Your task to perform on an android device: change keyboard looks Image 0: 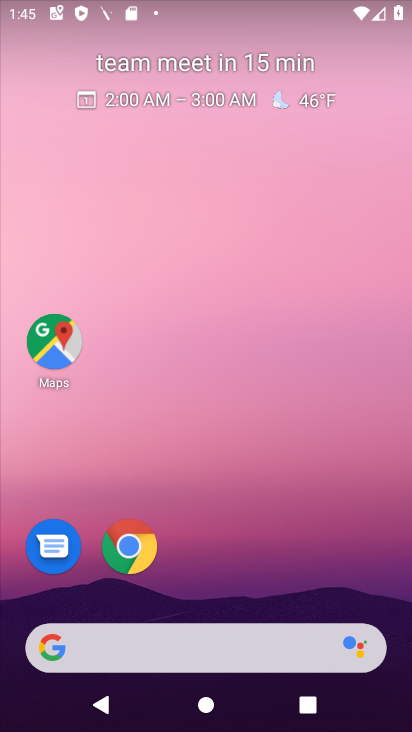
Step 0: drag from (392, 629) to (323, 110)
Your task to perform on an android device: change keyboard looks Image 1: 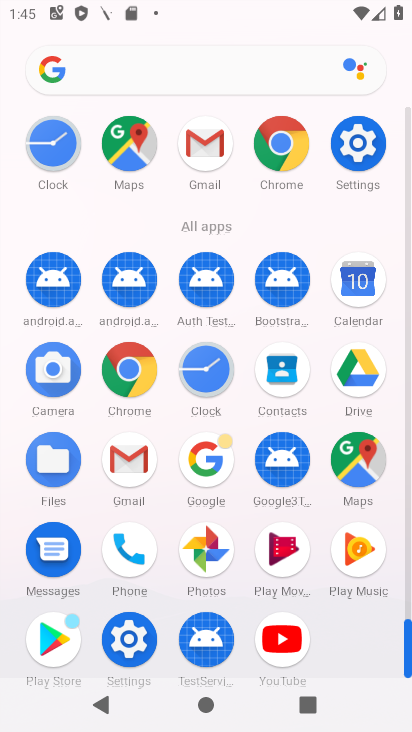
Step 1: click (132, 640)
Your task to perform on an android device: change keyboard looks Image 2: 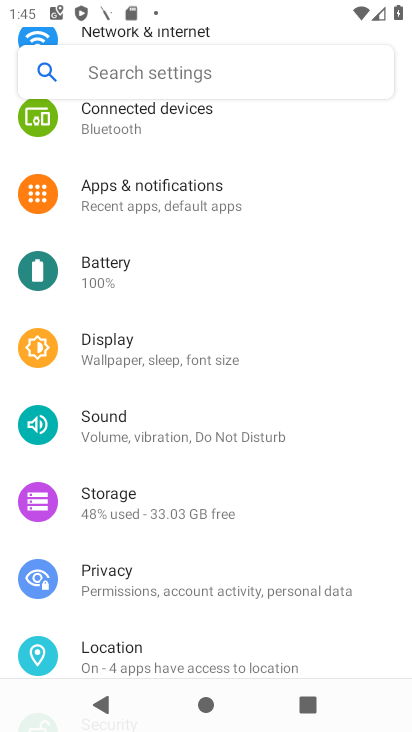
Step 2: drag from (252, 651) to (261, 264)
Your task to perform on an android device: change keyboard looks Image 3: 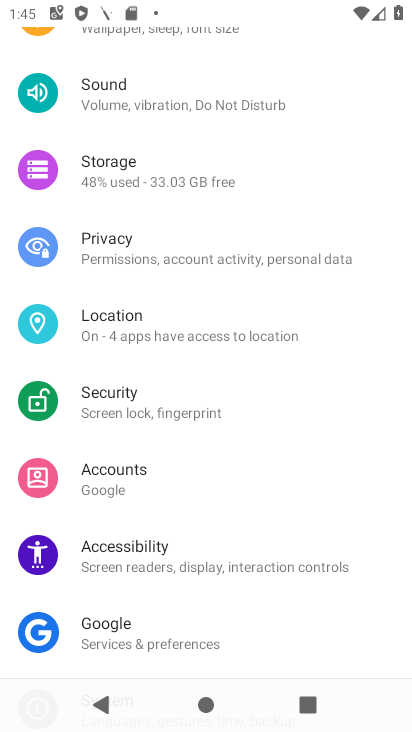
Step 3: drag from (282, 599) to (311, 220)
Your task to perform on an android device: change keyboard looks Image 4: 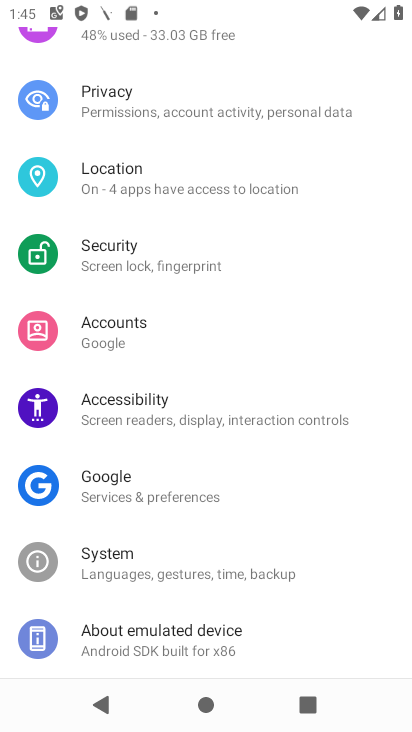
Step 4: click (117, 567)
Your task to perform on an android device: change keyboard looks Image 5: 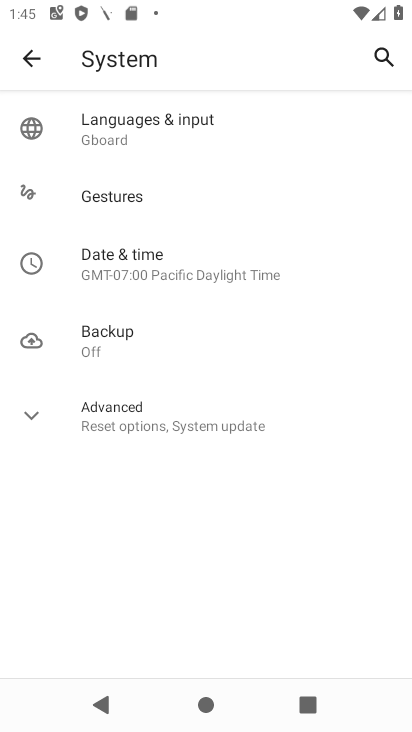
Step 5: click (116, 121)
Your task to perform on an android device: change keyboard looks Image 6: 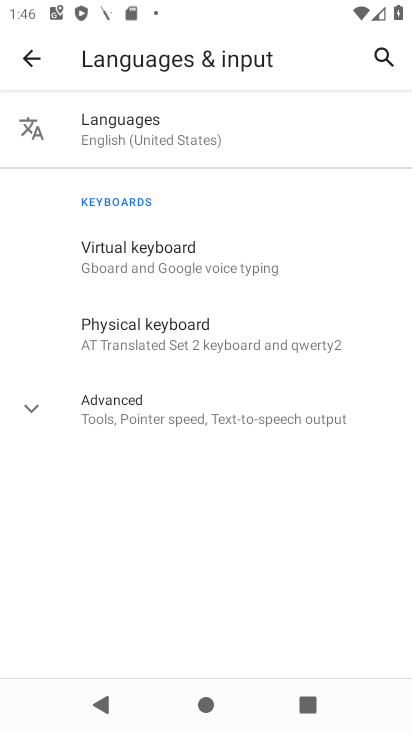
Step 6: click (122, 325)
Your task to perform on an android device: change keyboard looks Image 7: 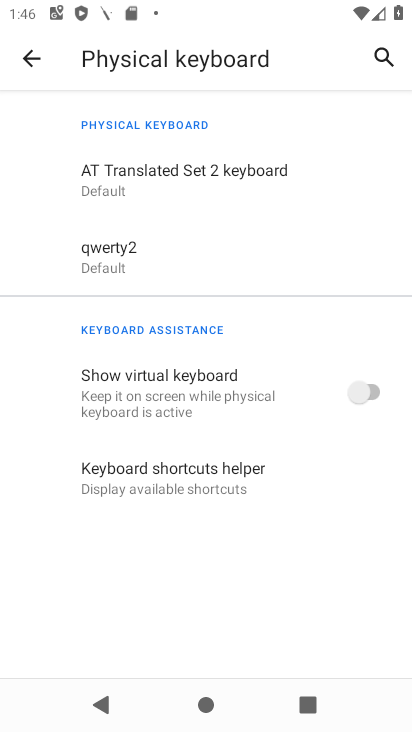
Step 7: click (100, 243)
Your task to perform on an android device: change keyboard looks Image 8: 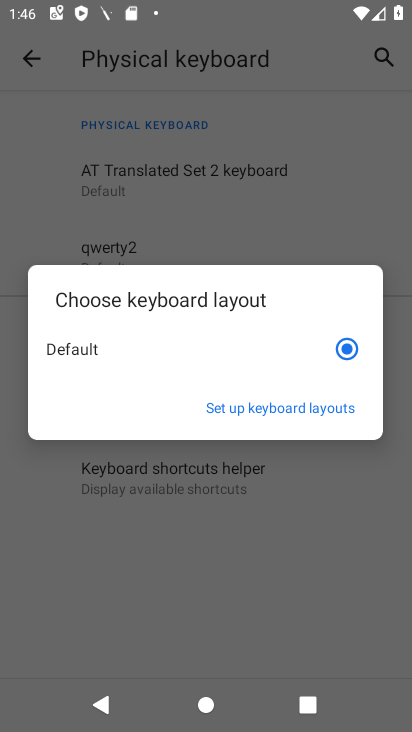
Step 8: click (274, 407)
Your task to perform on an android device: change keyboard looks Image 9: 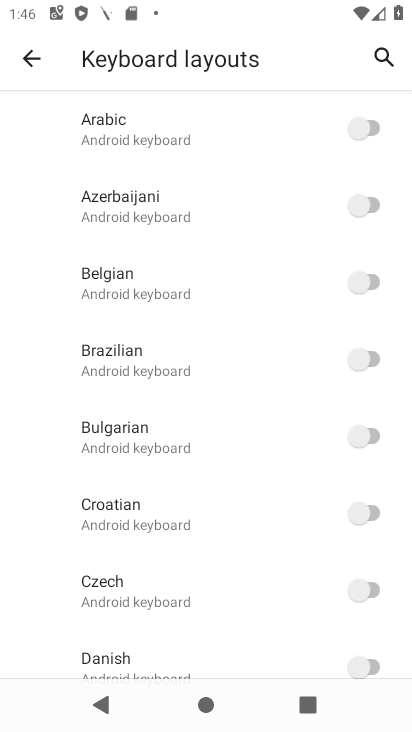
Step 9: click (372, 589)
Your task to perform on an android device: change keyboard looks Image 10: 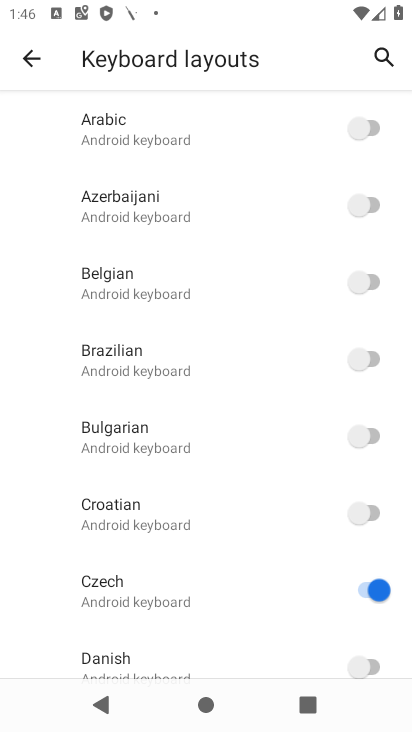
Step 10: task complete